Your task to perform on an android device: Clear the shopping cart on walmart.com. Add corsair k70 to the cart on walmart.com Image 0: 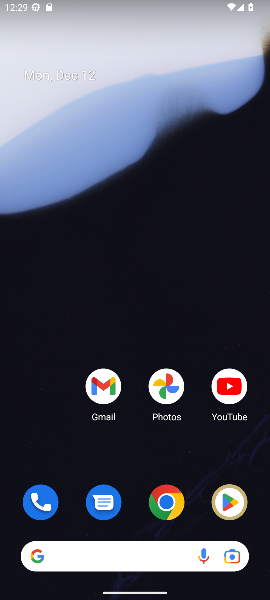
Step 0: click (185, 501)
Your task to perform on an android device: Clear the shopping cart on walmart.com. Add corsair k70 to the cart on walmart.com Image 1: 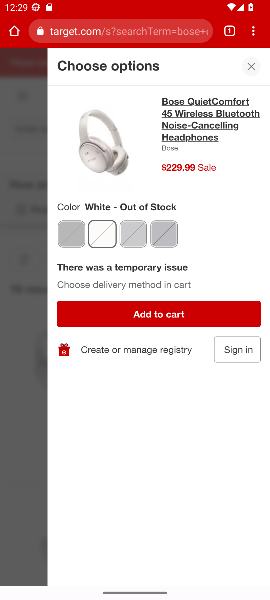
Step 1: click (147, 19)
Your task to perform on an android device: Clear the shopping cart on walmart.com. Add corsair k70 to the cart on walmart.com Image 2: 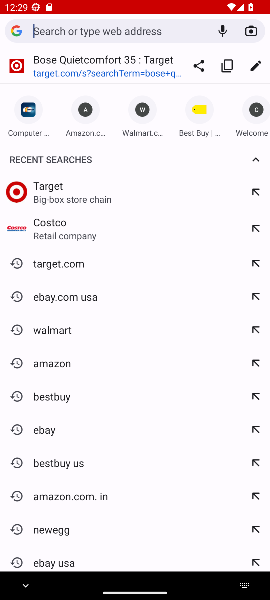
Step 2: click (90, 320)
Your task to perform on an android device: Clear the shopping cart on walmart.com. Add corsair k70 to the cart on walmart.com Image 3: 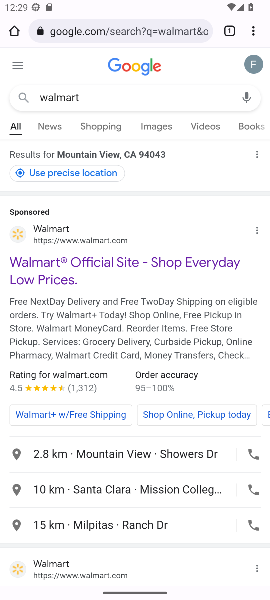
Step 3: click (72, 259)
Your task to perform on an android device: Clear the shopping cart on walmart.com. Add corsair k70 to the cart on walmart.com Image 4: 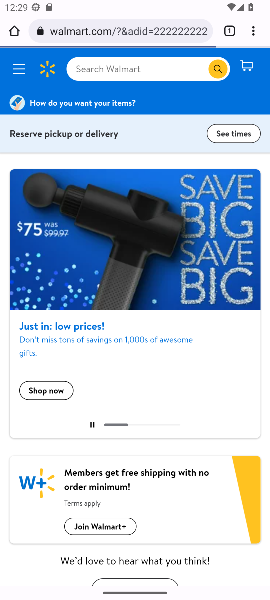
Step 4: click (117, 75)
Your task to perform on an android device: Clear the shopping cart on walmart.com. Add corsair k70 to the cart on walmart.com Image 5: 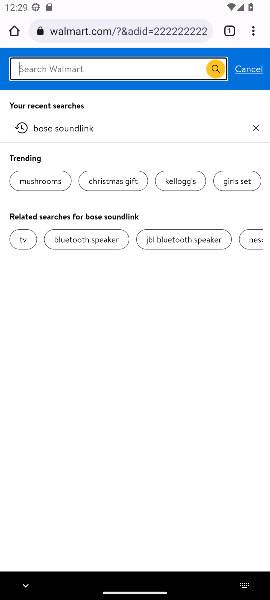
Step 5: type "corsair"
Your task to perform on an android device: Clear the shopping cart on walmart.com. Add corsair k70 to the cart on walmart.com Image 6: 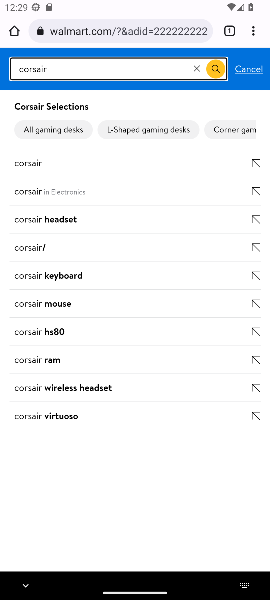
Step 6: type "k70"
Your task to perform on an android device: Clear the shopping cart on walmart.com. Add corsair k70 to the cart on walmart.com Image 7: 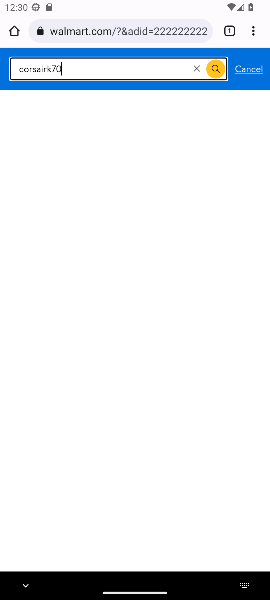
Step 7: click (218, 70)
Your task to perform on an android device: Clear the shopping cart on walmart.com. Add corsair k70 to the cart on walmart.com Image 8: 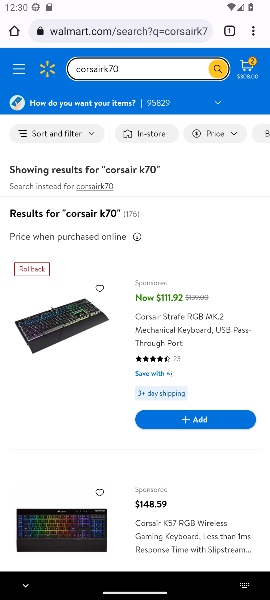
Step 8: click (157, 432)
Your task to perform on an android device: Clear the shopping cart on walmart.com. Add corsair k70 to the cart on walmart.com Image 9: 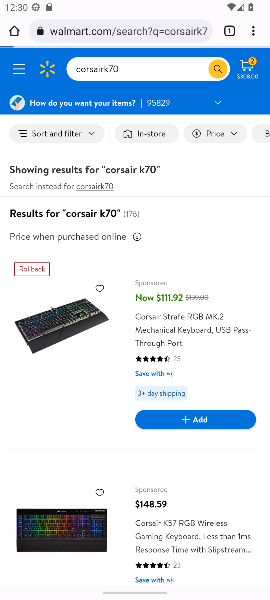
Step 9: click (165, 422)
Your task to perform on an android device: Clear the shopping cart on walmart.com. Add corsair k70 to the cart on walmart.com Image 10: 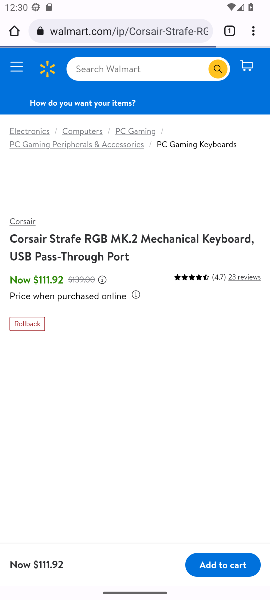
Step 10: task complete